Your task to perform on an android device: toggle location history Image 0: 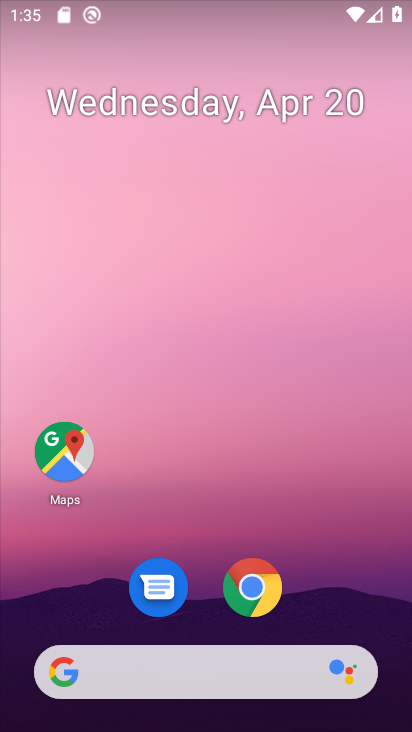
Step 0: click (74, 450)
Your task to perform on an android device: toggle location history Image 1: 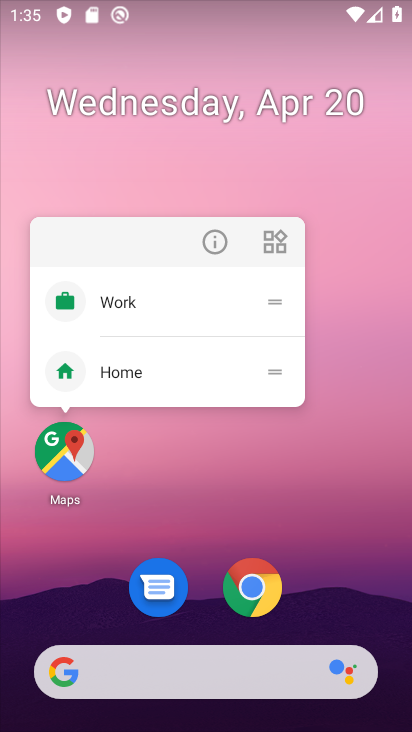
Step 1: click (60, 469)
Your task to perform on an android device: toggle location history Image 2: 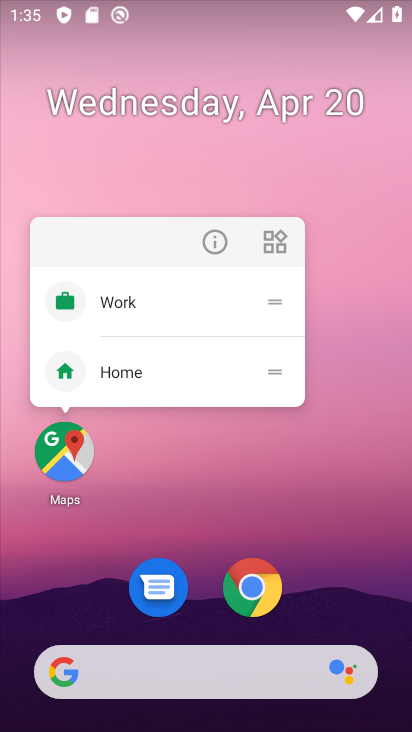
Step 2: click (60, 469)
Your task to perform on an android device: toggle location history Image 3: 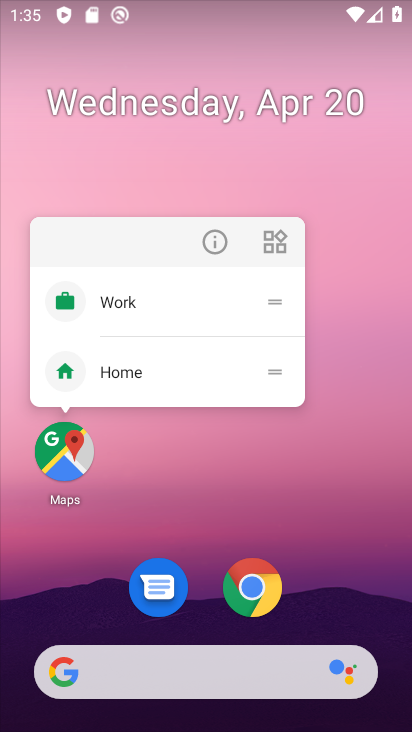
Step 3: drag from (363, 485) to (333, 161)
Your task to perform on an android device: toggle location history Image 4: 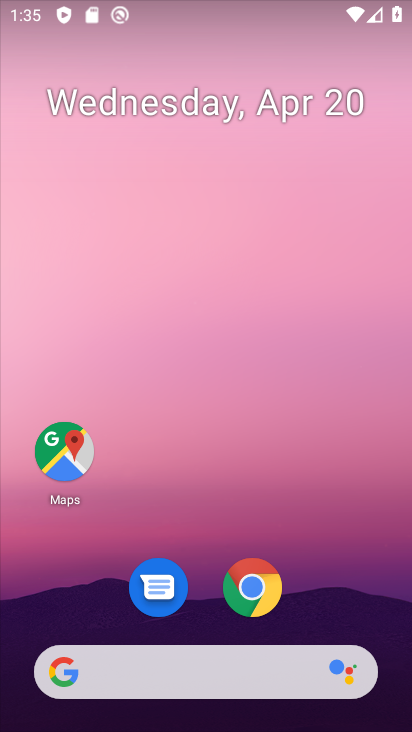
Step 4: drag from (392, 635) to (254, 231)
Your task to perform on an android device: toggle location history Image 5: 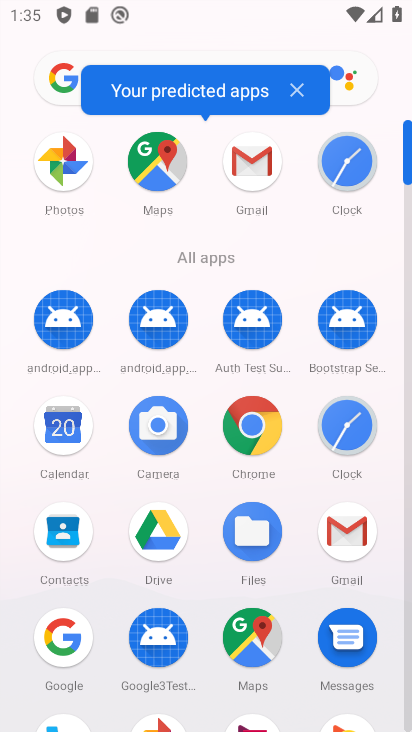
Step 5: click (166, 188)
Your task to perform on an android device: toggle location history Image 6: 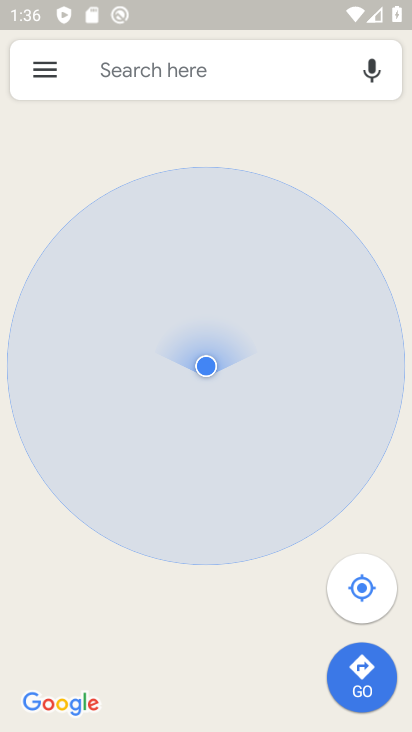
Step 6: click (188, 81)
Your task to perform on an android device: toggle location history Image 7: 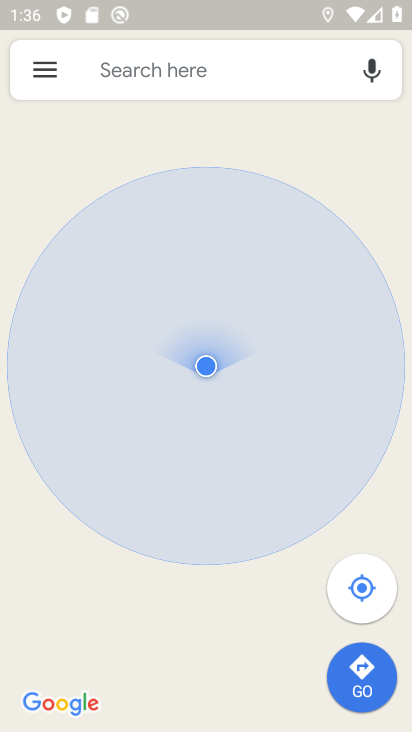
Step 7: click (51, 77)
Your task to perform on an android device: toggle location history Image 8: 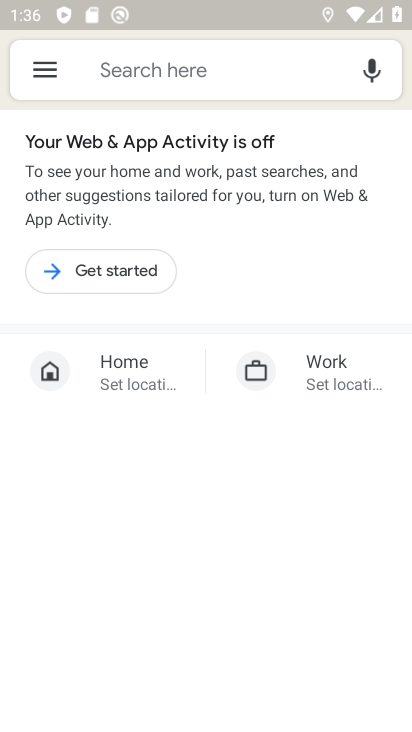
Step 8: click (51, 77)
Your task to perform on an android device: toggle location history Image 9: 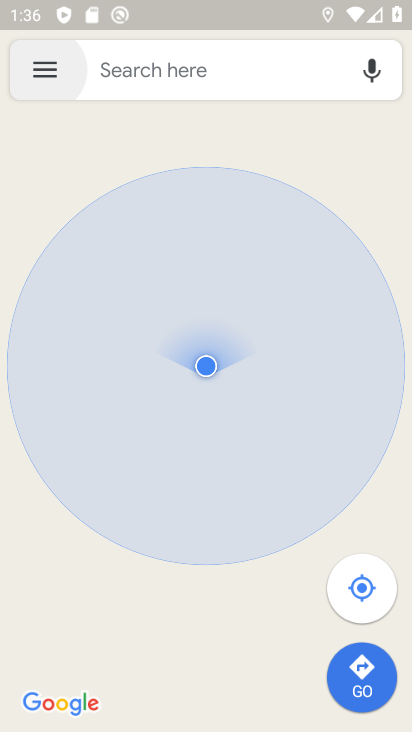
Step 9: click (51, 77)
Your task to perform on an android device: toggle location history Image 10: 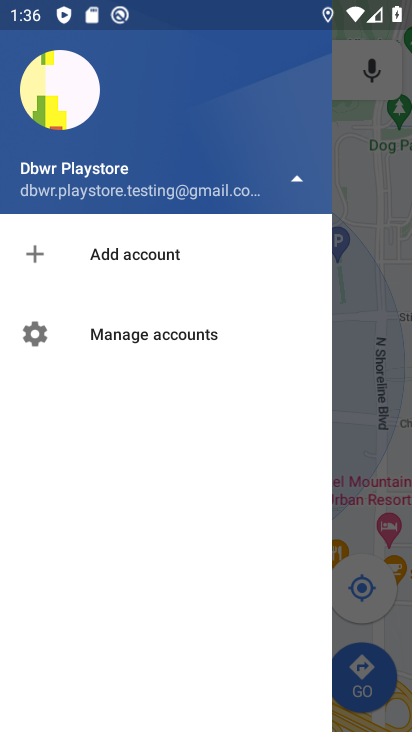
Step 10: click (368, 265)
Your task to perform on an android device: toggle location history Image 11: 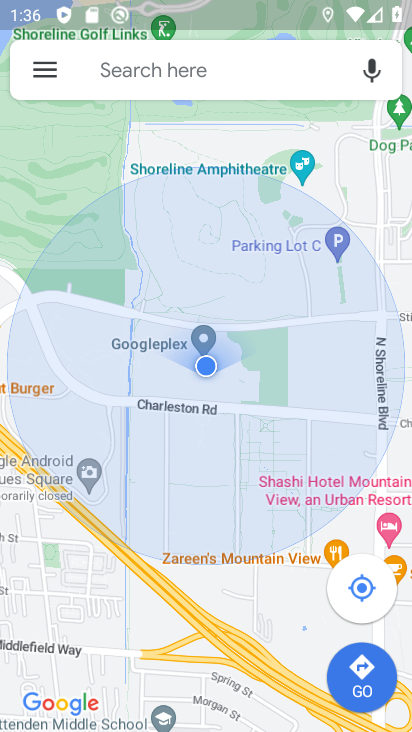
Step 11: click (44, 71)
Your task to perform on an android device: toggle location history Image 12: 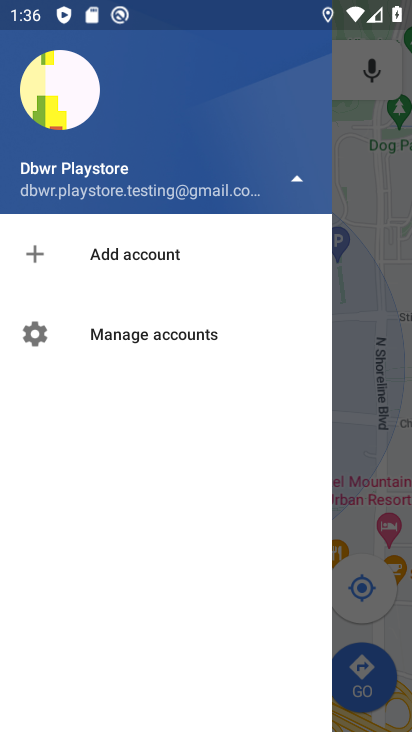
Step 12: click (360, 348)
Your task to perform on an android device: toggle location history Image 13: 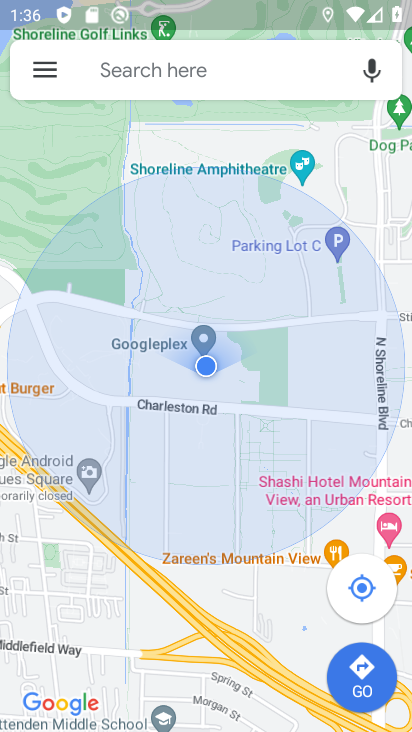
Step 13: task complete